Your task to perform on an android device: Open Yahoo.com Image 0: 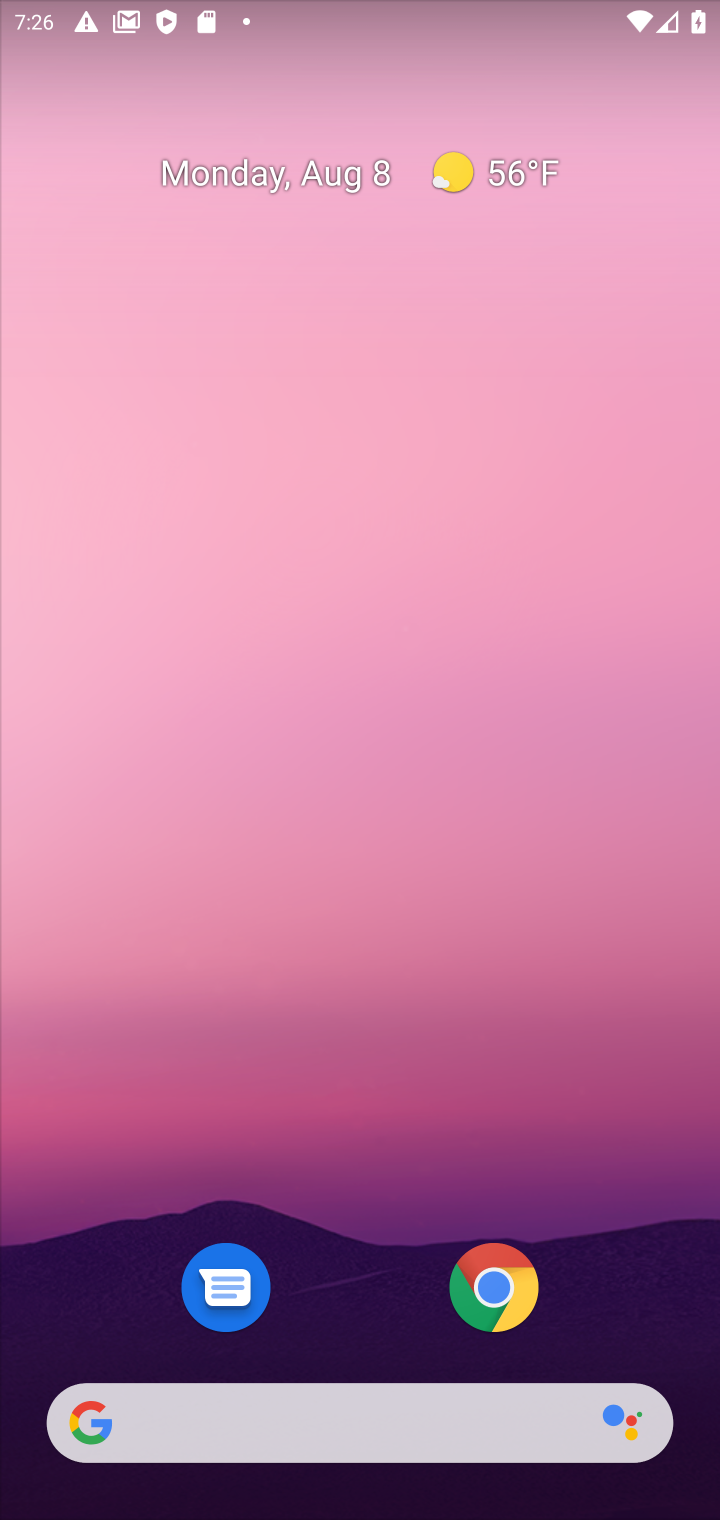
Step 0: click (417, 1394)
Your task to perform on an android device: Open Yahoo.com Image 1: 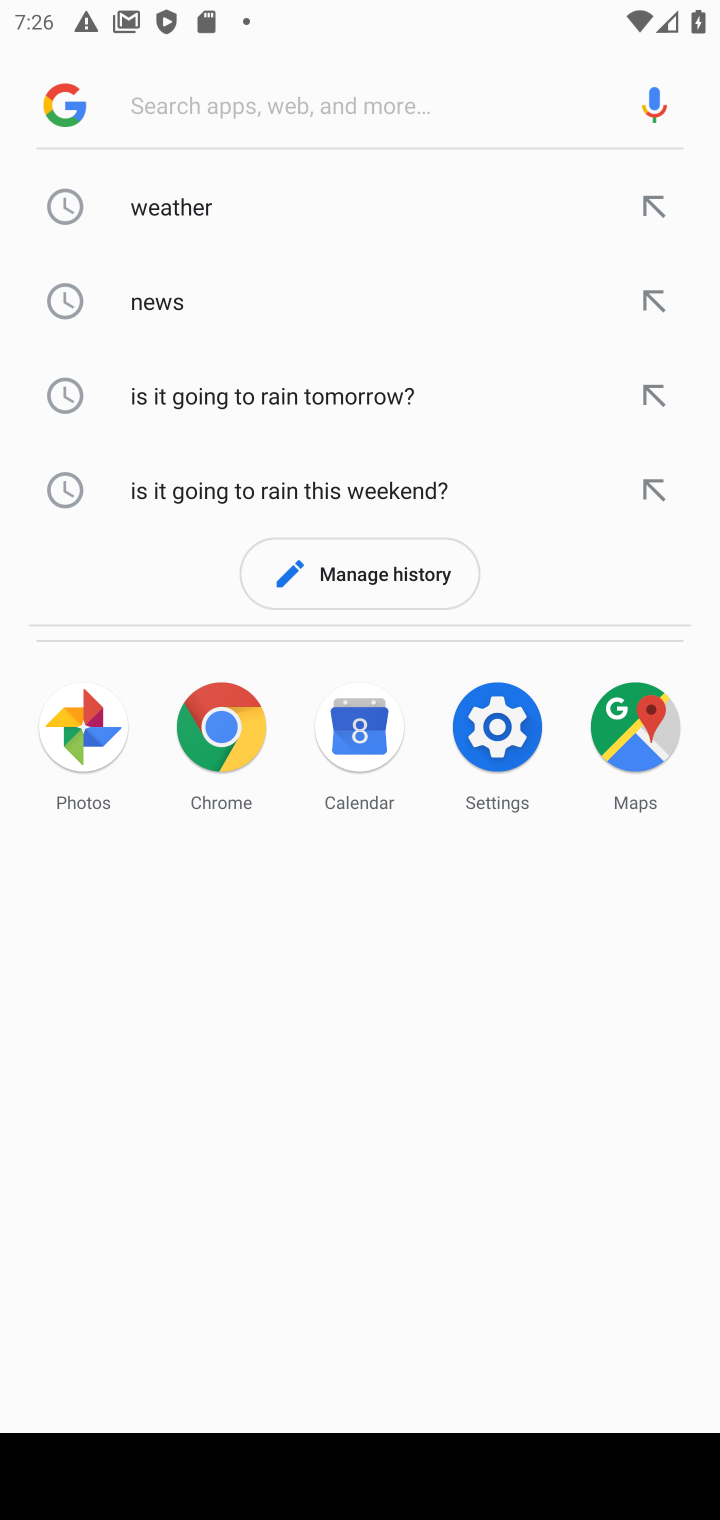
Step 1: type "Yahoo.com"
Your task to perform on an android device: Open Yahoo.com Image 2: 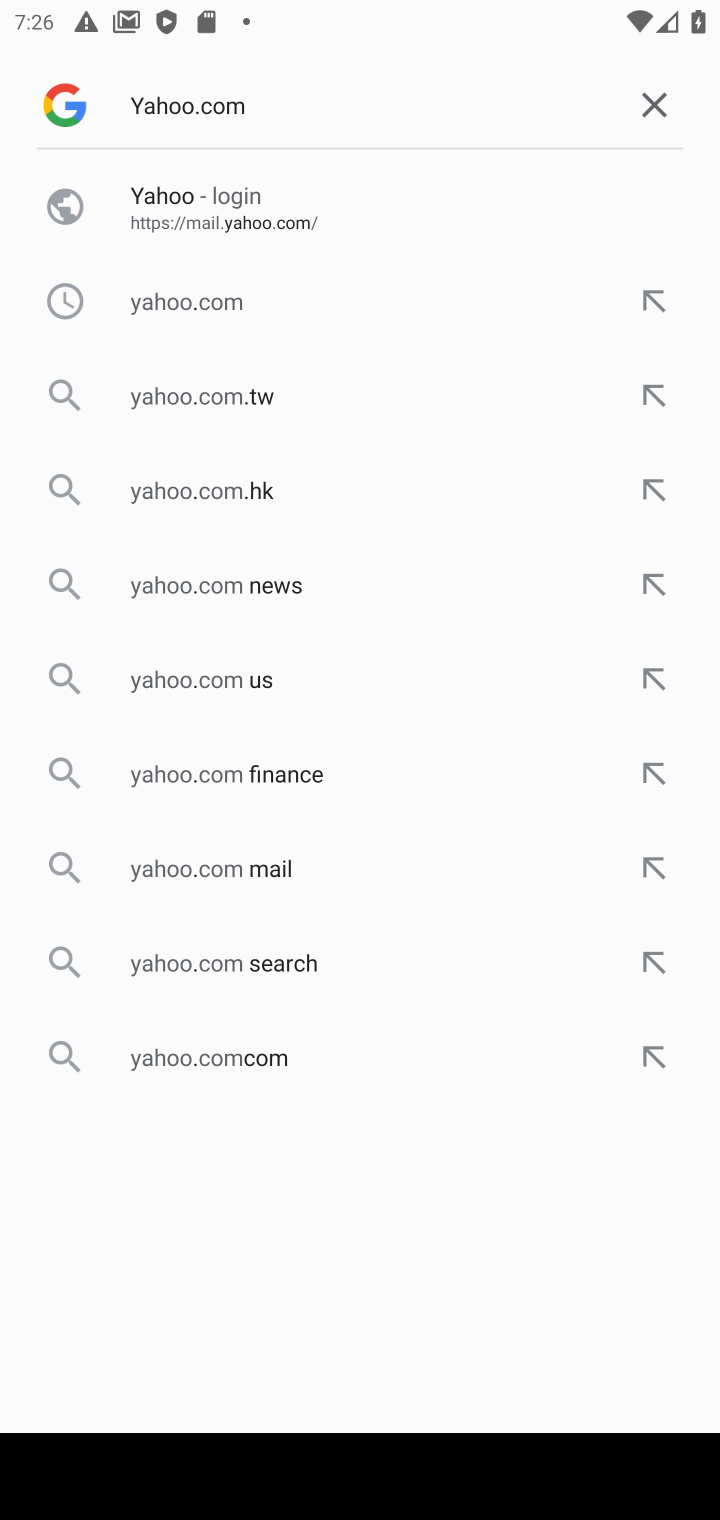
Step 2: press enter
Your task to perform on an android device: Open Yahoo.com Image 3: 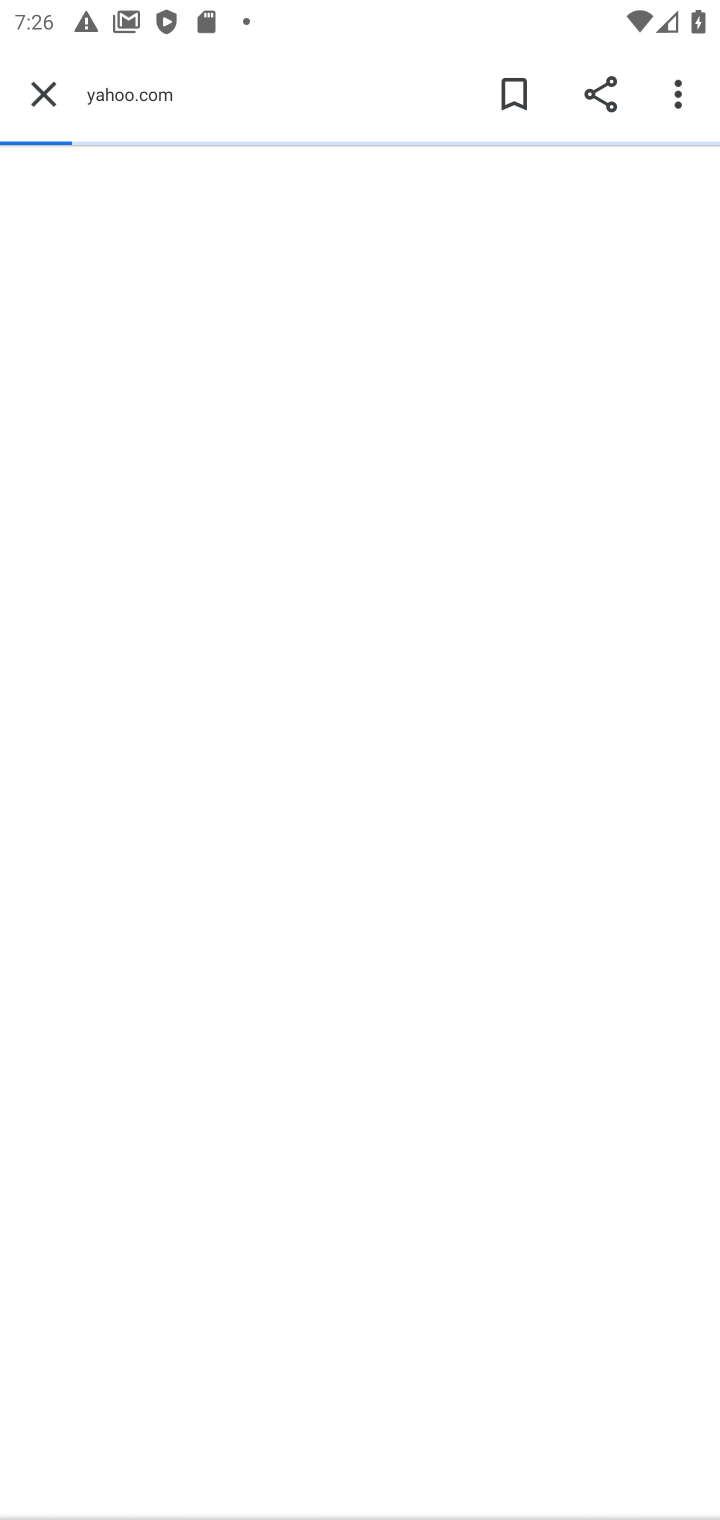
Step 3: task complete